Your task to perform on an android device: Open the calendar and show me this week's events? Image 0: 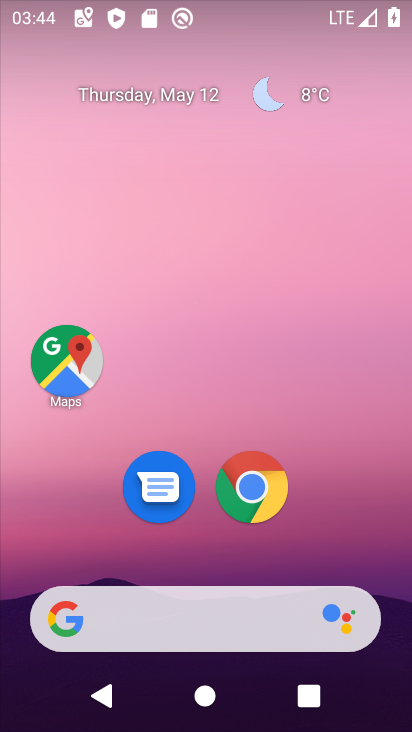
Step 0: drag from (334, 539) to (300, 100)
Your task to perform on an android device: Open the calendar and show me this week's events? Image 1: 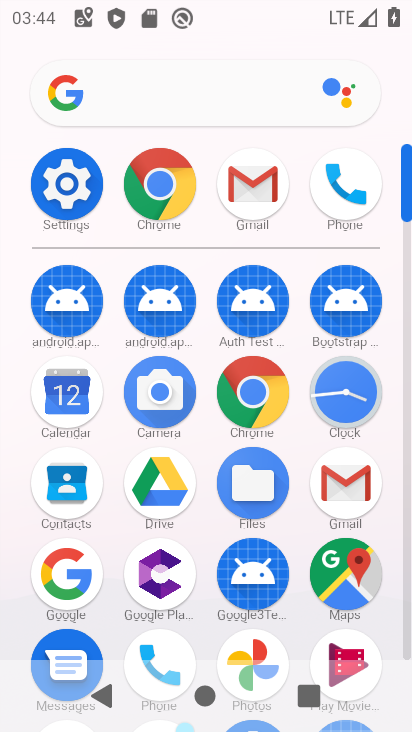
Step 1: click (51, 394)
Your task to perform on an android device: Open the calendar and show me this week's events? Image 2: 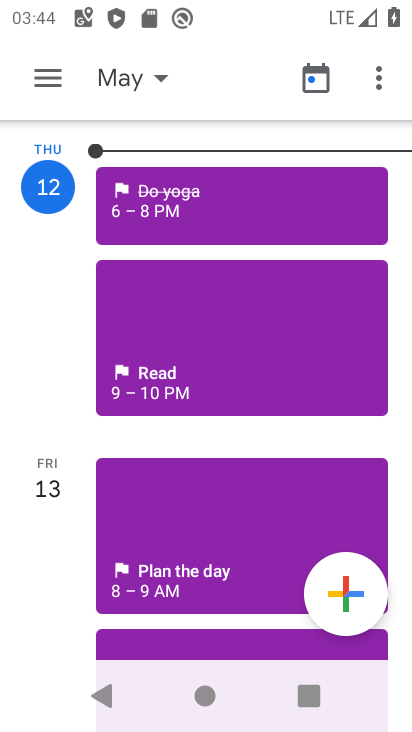
Step 2: click (129, 73)
Your task to perform on an android device: Open the calendar and show me this week's events? Image 3: 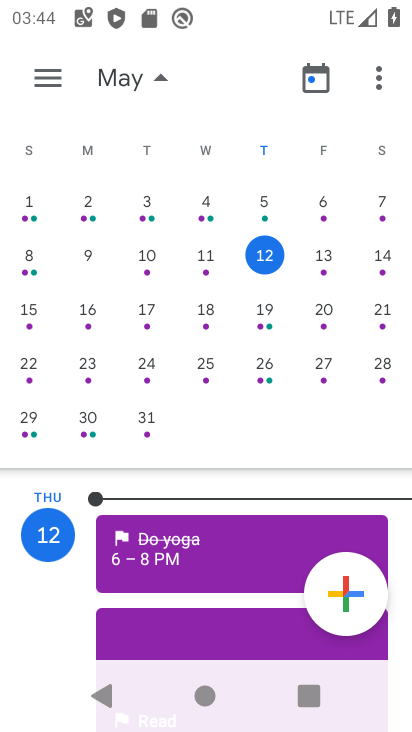
Step 3: click (38, 75)
Your task to perform on an android device: Open the calendar and show me this week's events? Image 4: 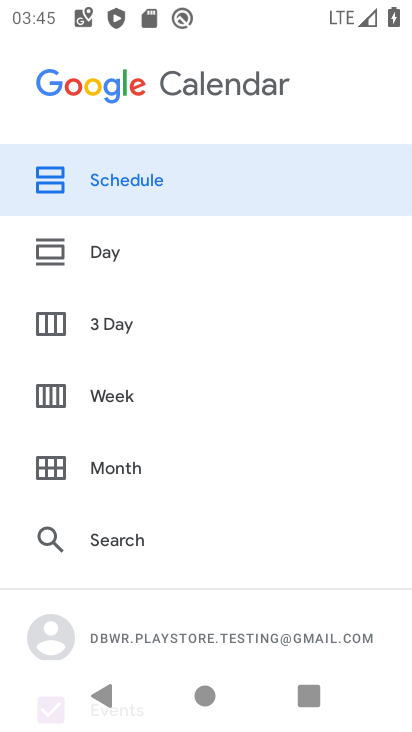
Step 4: click (108, 398)
Your task to perform on an android device: Open the calendar and show me this week's events? Image 5: 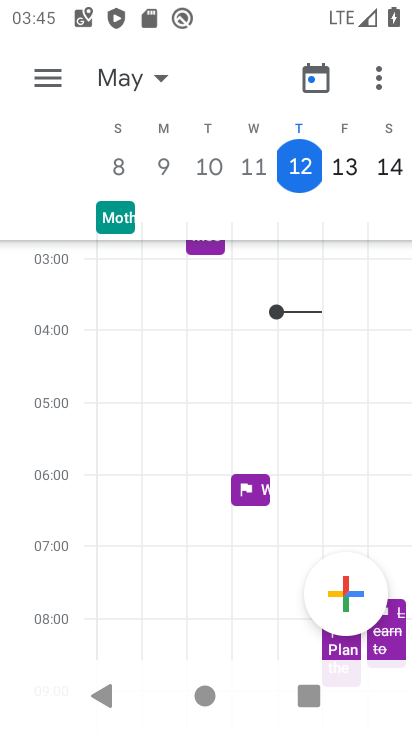
Step 5: task complete